Your task to perform on an android device: Open maps Image 0: 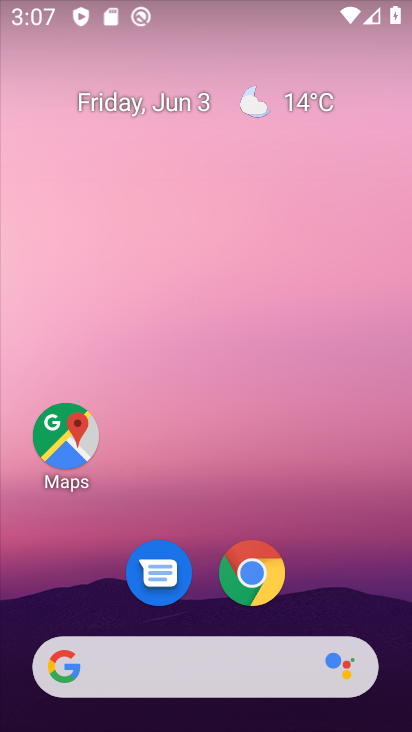
Step 0: drag from (207, 637) to (226, 123)
Your task to perform on an android device: Open maps Image 1: 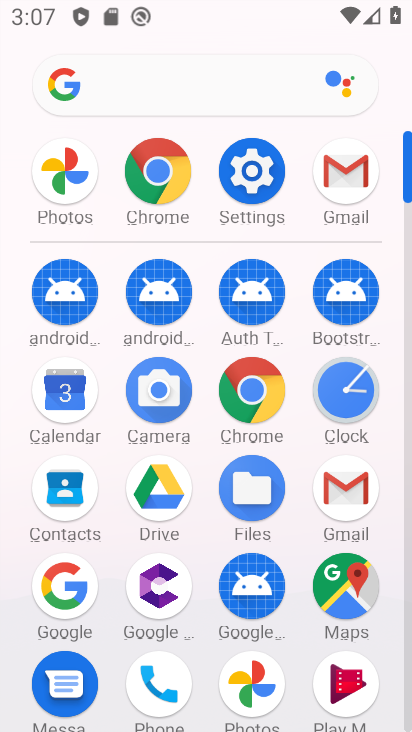
Step 1: click (334, 609)
Your task to perform on an android device: Open maps Image 2: 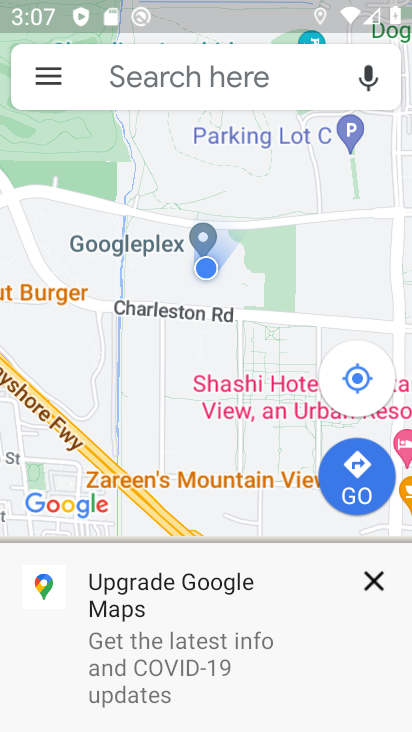
Step 2: click (377, 579)
Your task to perform on an android device: Open maps Image 3: 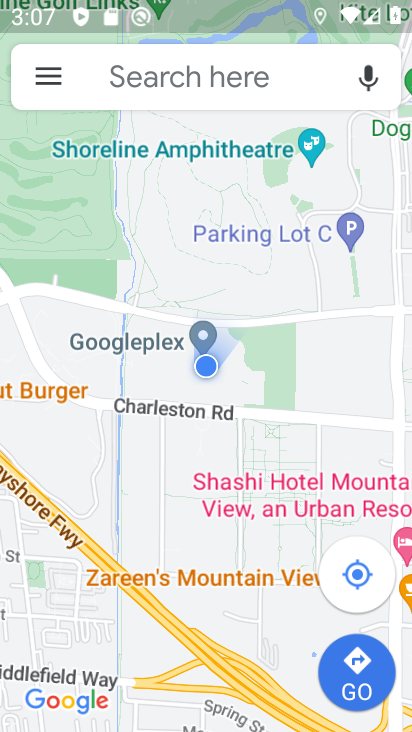
Step 3: task complete